Your task to perform on an android device: allow cookies in the chrome app Image 0: 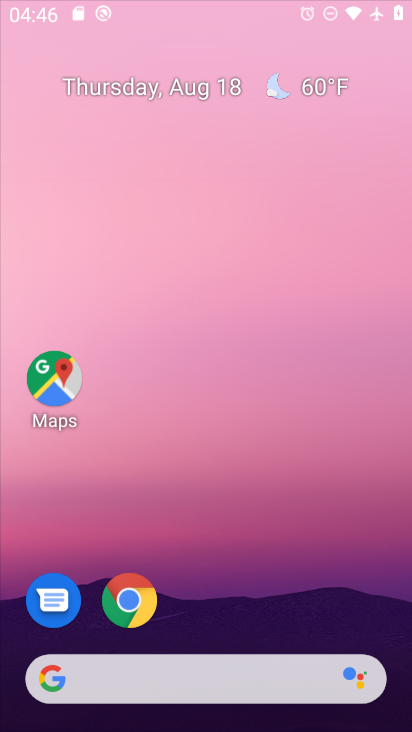
Step 0: press home button
Your task to perform on an android device: allow cookies in the chrome app Image 1: 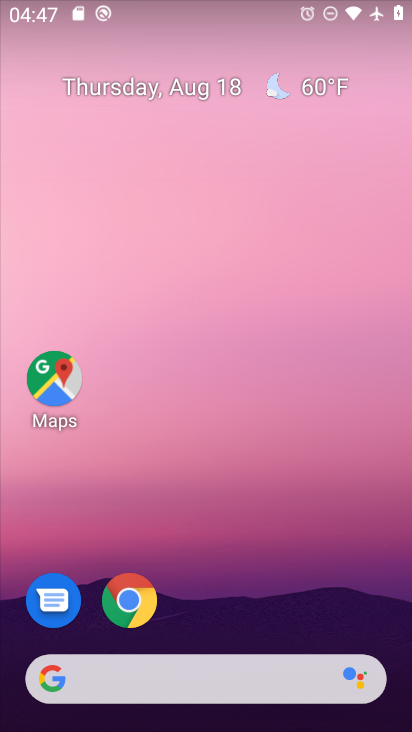
Step 1: click (136, 602)
Your task to perform on an android device: allow cookies in the chrome app Image 2: 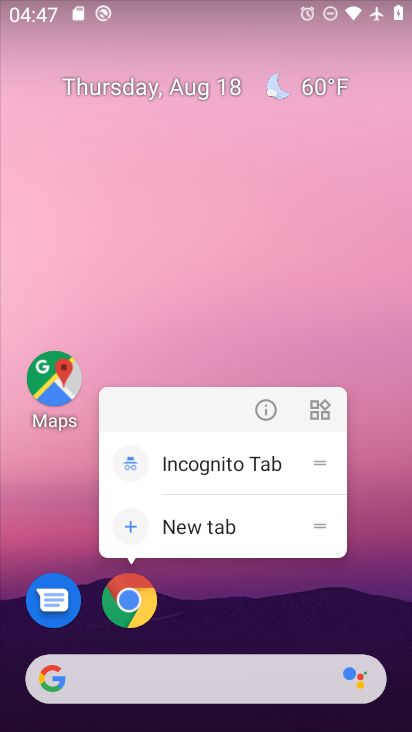
Step 2: click (136, 602)
Your task to perform on an android device: allow cookies in the chrome app Image 3: 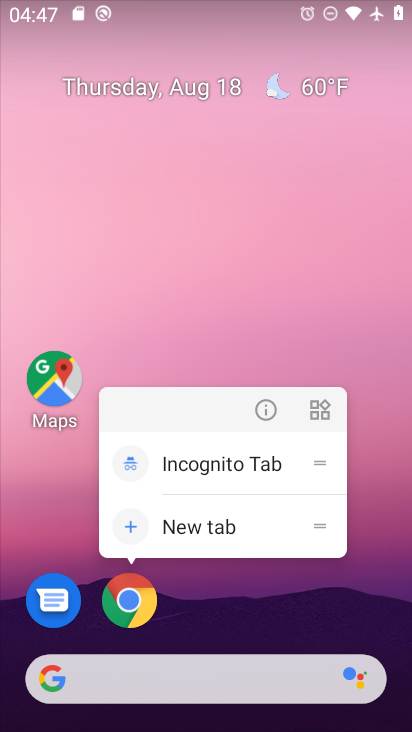
Step 3: click (136, 602)
Your task to perform on an android device: allow cookies in the chrome app Image 4: 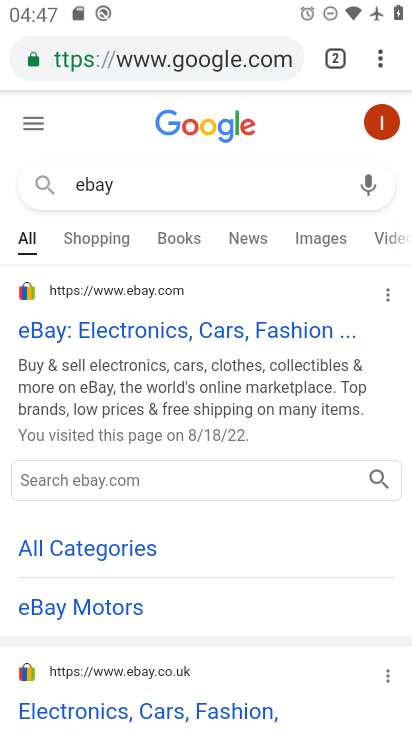
Step 4: drag from (374, 62) to (182, 659)
Your task to perform on an android device: allow cookies in the chrome app Image 5: 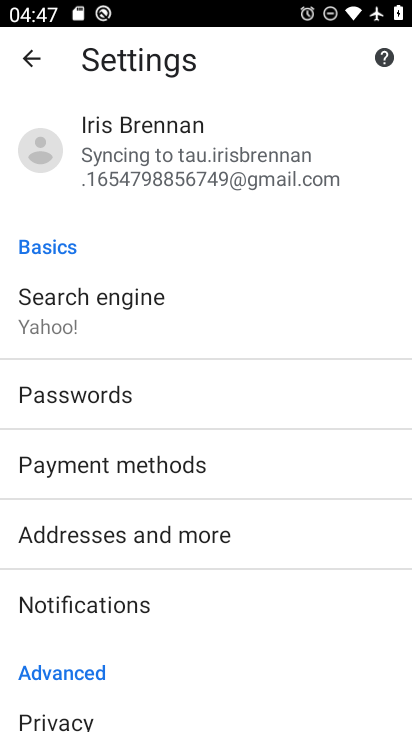
Step 5: drag from (233, 673) to (217, 24)
Your task to perform on an android device: allow cookies in the chrome app Image 6: 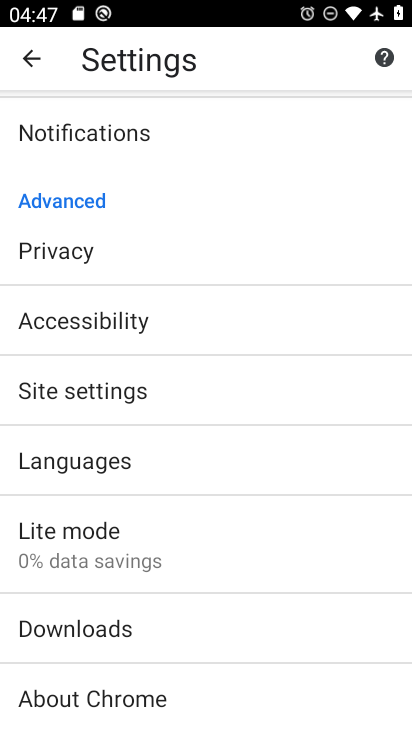
Step 6: click (71, 399)
Your task to perform on an android device: allow cookies in the chrome app Image 7: 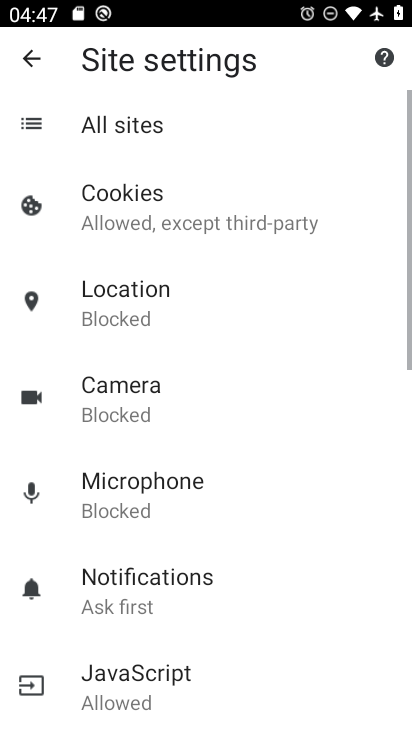
Step 7: click (122, 216)
Your task to perform on an android device: allow cookies in the chrome app Image 8: 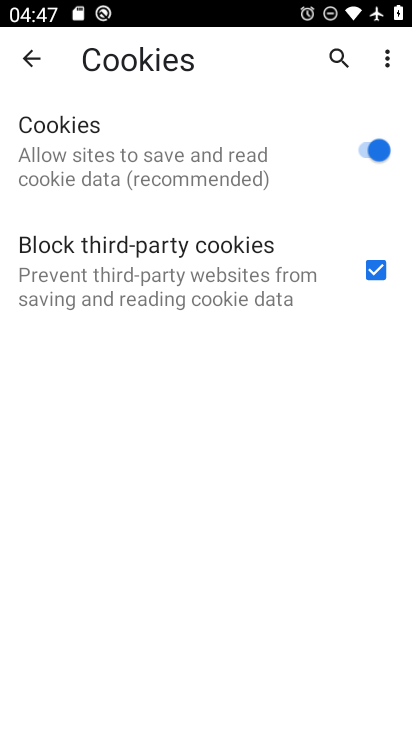
Step 8: task complete